Your task to perform on an android device: toggle notifications settings in the gmail app Image 0: 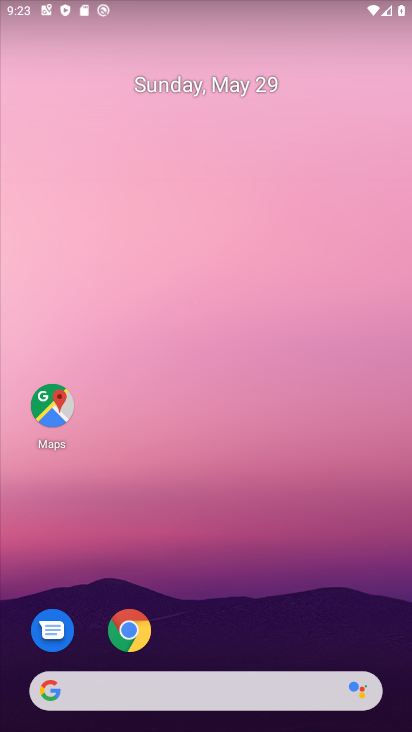
Step 0: drag from (306, 610) to (309, 160)
Your task to perform on an android device: toggle notifications settings in the gmail app Image 1: 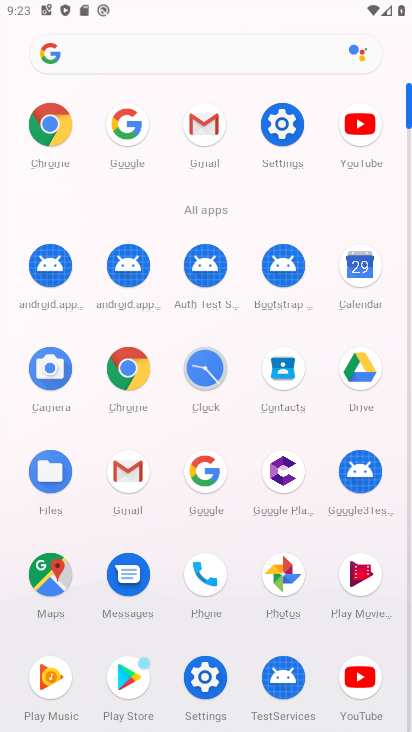
Step 1: click (128, 475)
Your task to perform on an android device: toggle notifications settings in the gmail app Image 2: 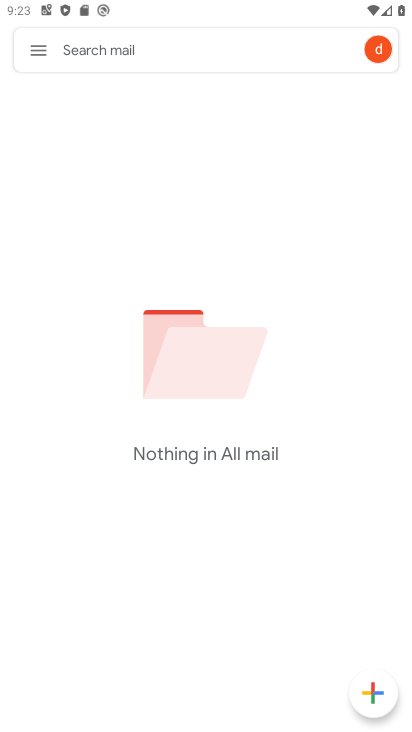
Step 2: click (46, 54)
Your task to perform on an android device: toggle notifications settings in the gmail app Image 3: 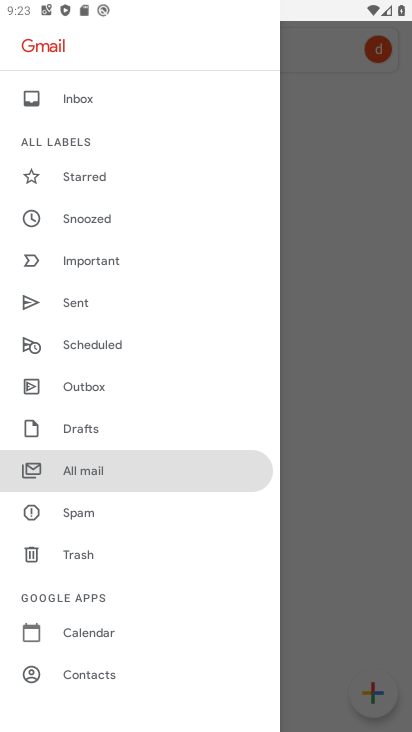
Step 3: drag from (84, 602) to (67, 417)
Your task to perform on an android device: toggle notifications settings in the gmail app Image 4: 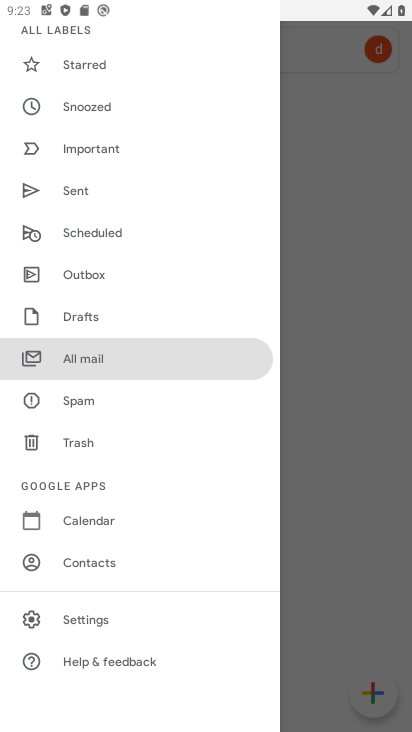
Step 4: click (79, 611)
Your task to perform on an android device: toggle notifications settings in the gmail app Image 5: 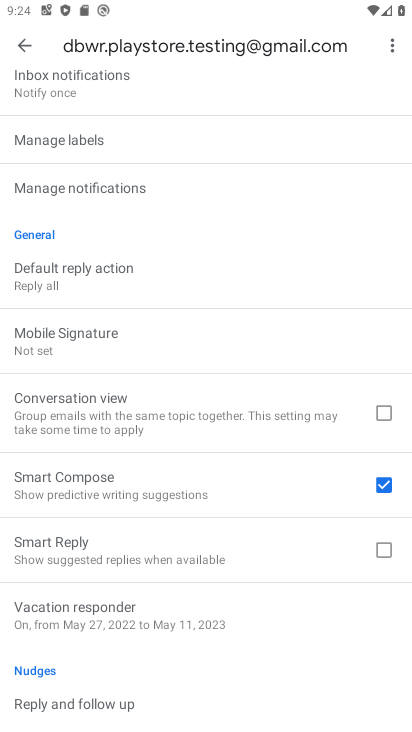
Step 5: drag from (88, 150) to (74, 384)
Your task to perform on an android device: toggle notifications settings in the gmail app Image 6: 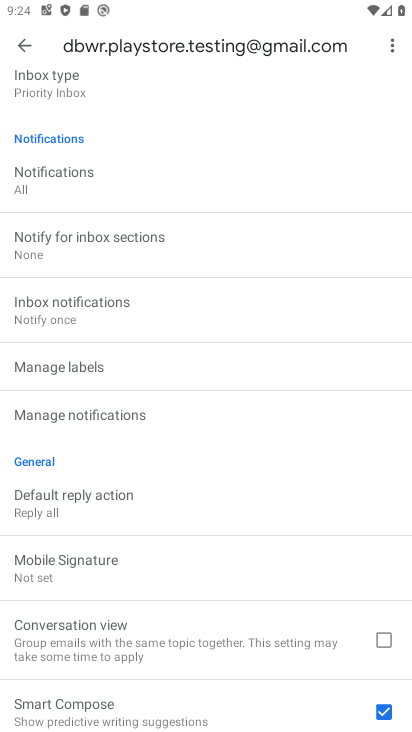
Step 6: click (77, 412)
Your task to perform on an android device: toggle notifications settings in the gmail app Image 7: 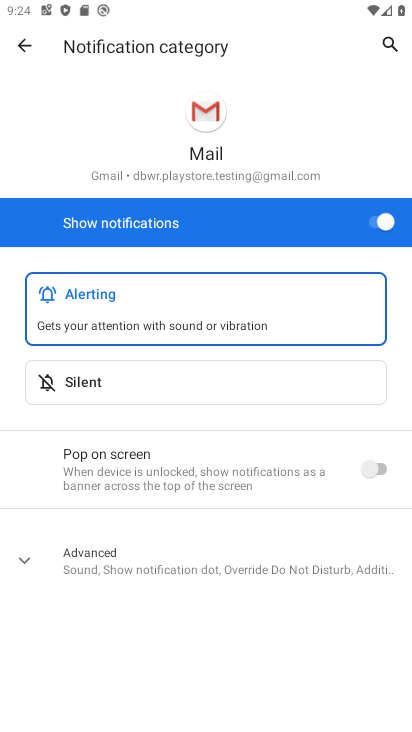
Step 7: click (140, 359)
Your task to perform on an android device: toggle notifications settings in the gmail app Image 8: 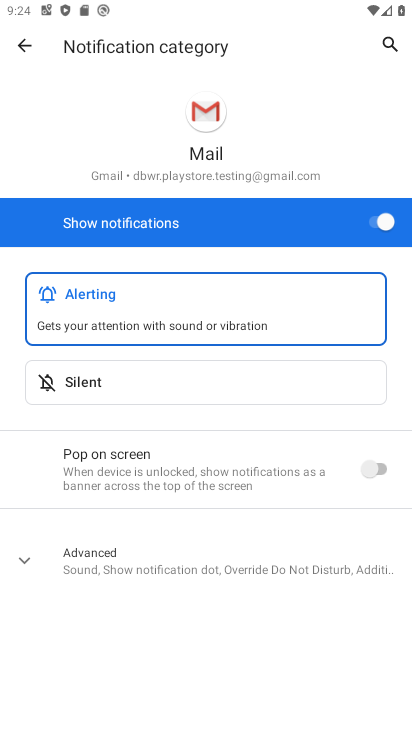
Step 8: click (298, 395)
Your task to perform on an android device: toggle notifications settings in the gmail app Image 9: 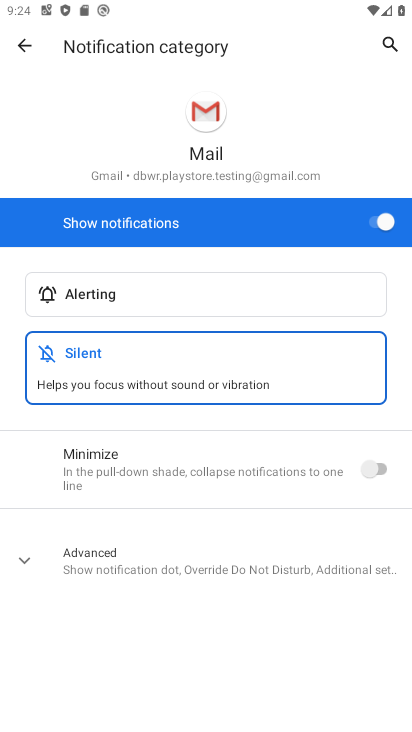
Step 9: task complete